Your task to perform on an android device: snooze an email in the gmail app Image 0: 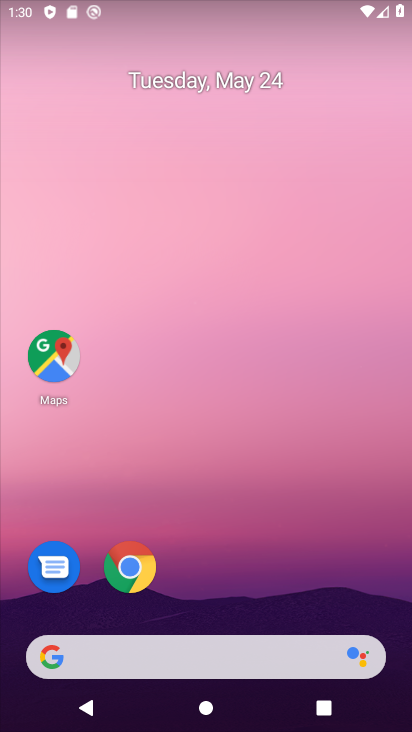
Step 0: drag from (174, 625) to (256, 141)
Your task to perform on an android device: snooze an email in the gmail app Image 1: 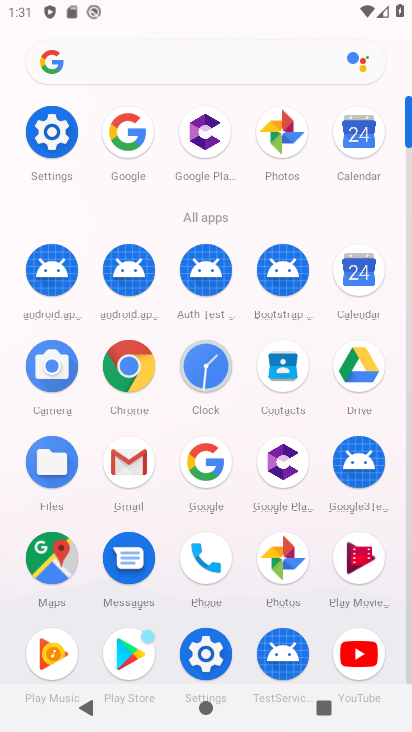
Step 1: click (135, 459)
Your task to perform on an android device: snooze an email in the gmail app Image 2: 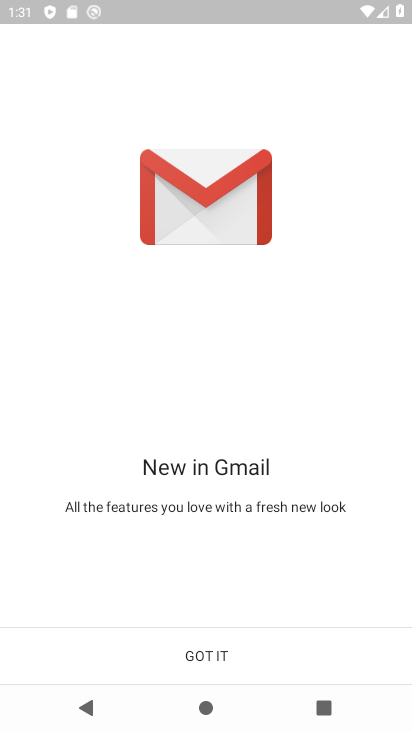
Step 2: click (223, 658)
Your task to perform on an android device: snooze an email in the gmail app Image 3: 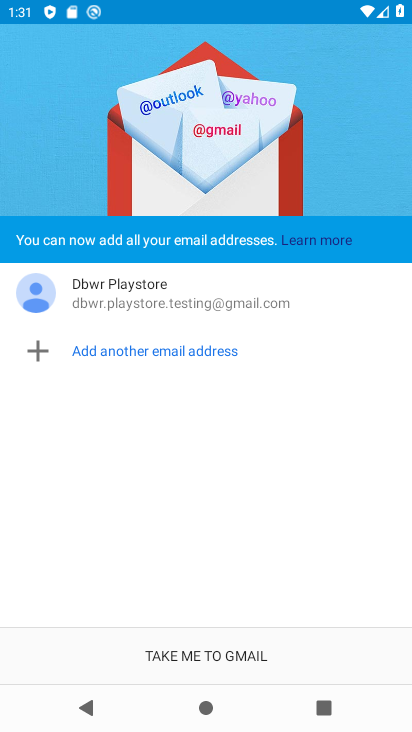
Step 3: click (225, 660)
Your task to perform on an android device: snooze an email in the gmail app Image 4: 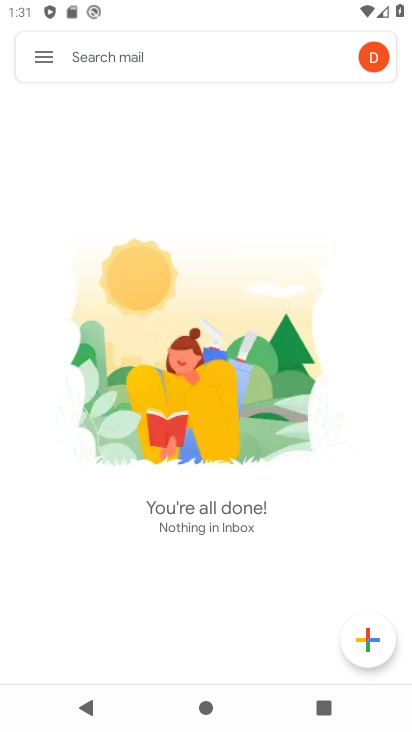
Step 4: click (52, 62)
Your task to perform on an android device: snooze an email in the gmail app Image 5: 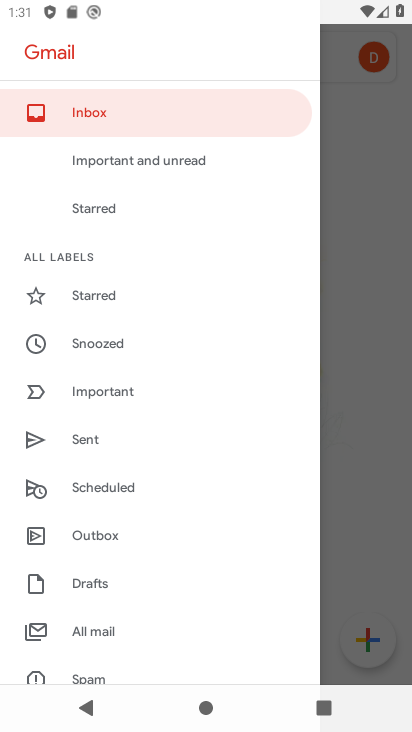
Step 5: click (132, 641)
Your task to perform on an android device: snooze an email in the gmail app Image 6: 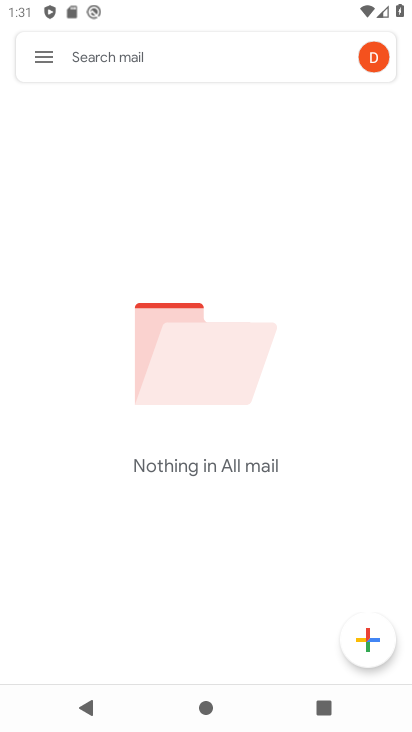
Step 6: task complete